Your task to perform on an android device: remove spam from my inbox in the gmail app Image 0: 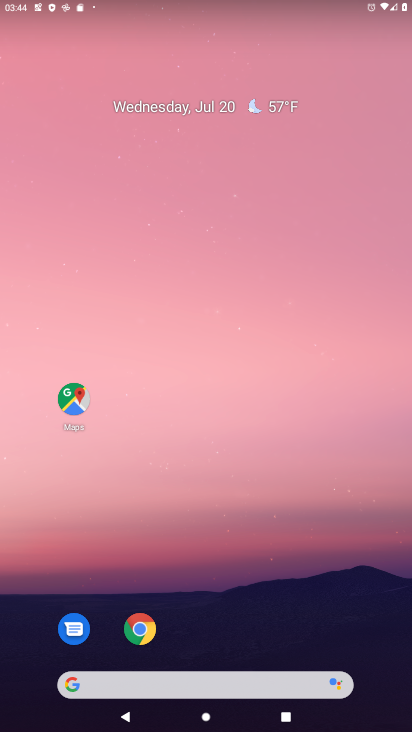
Step 0: drag from (352, 672) to (302, 75)
Your task to perform on an android device: remove spam from my inbox in the gmail app Image 1: 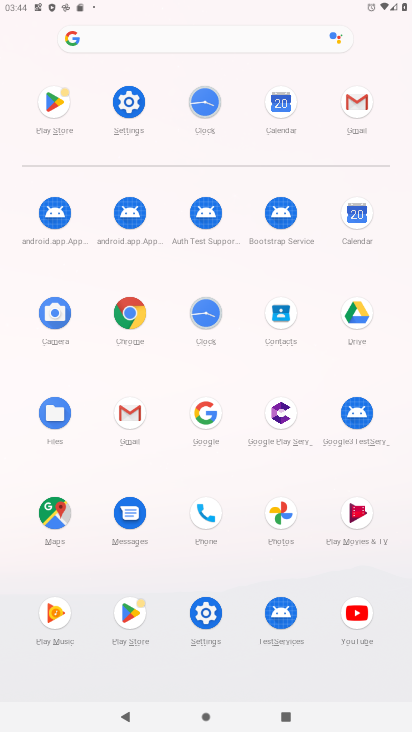
Step 1: click (129, 414)
Your task to perform on an android device: remove spam from my inbox in the gmail app Image 2: 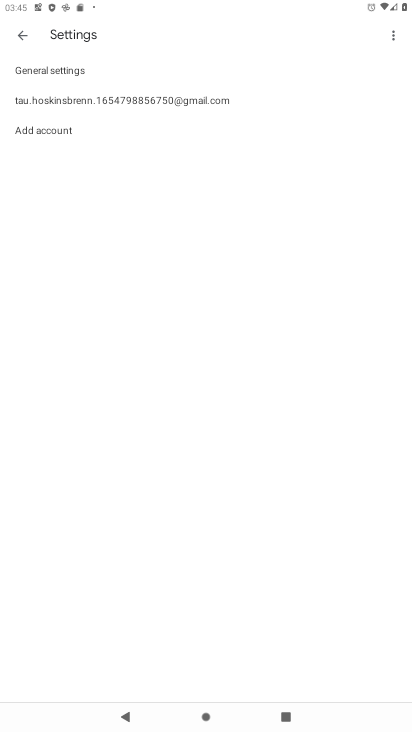
Step 2: press back button
Your task to perform on an android device: remove spam from my inbox in the gmail app Image 3: 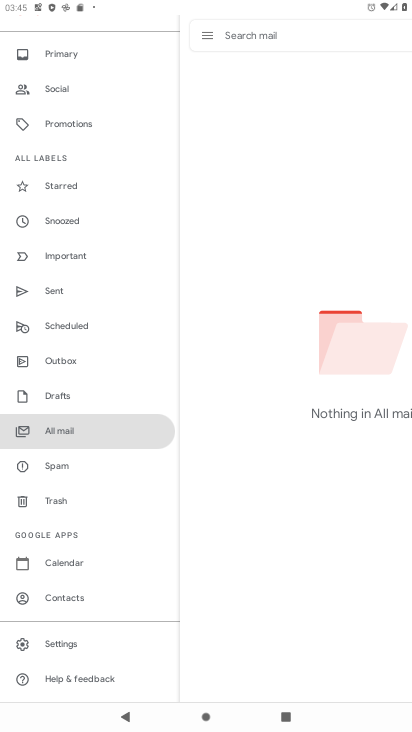
Step 3: click (49, 468)
Your task to perform on an android device: remove spam from my inbox in the gmail app Image 4: 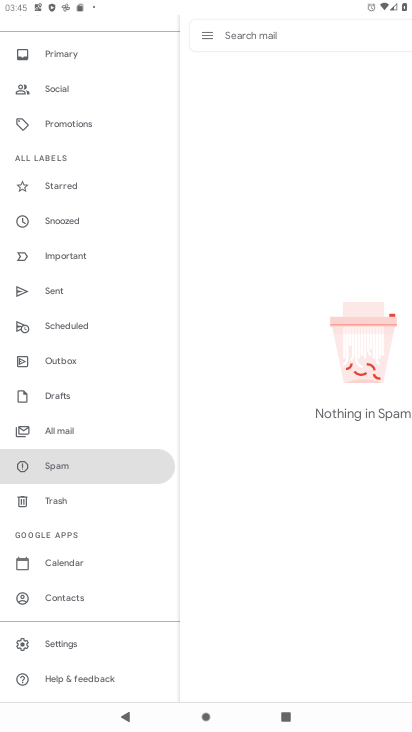
Step 4: task complete